Your task to perform on an android device: Search for "razer deathadder" on bestbuy, select the first entry, add it to the cart, then select checkout. Image 0: 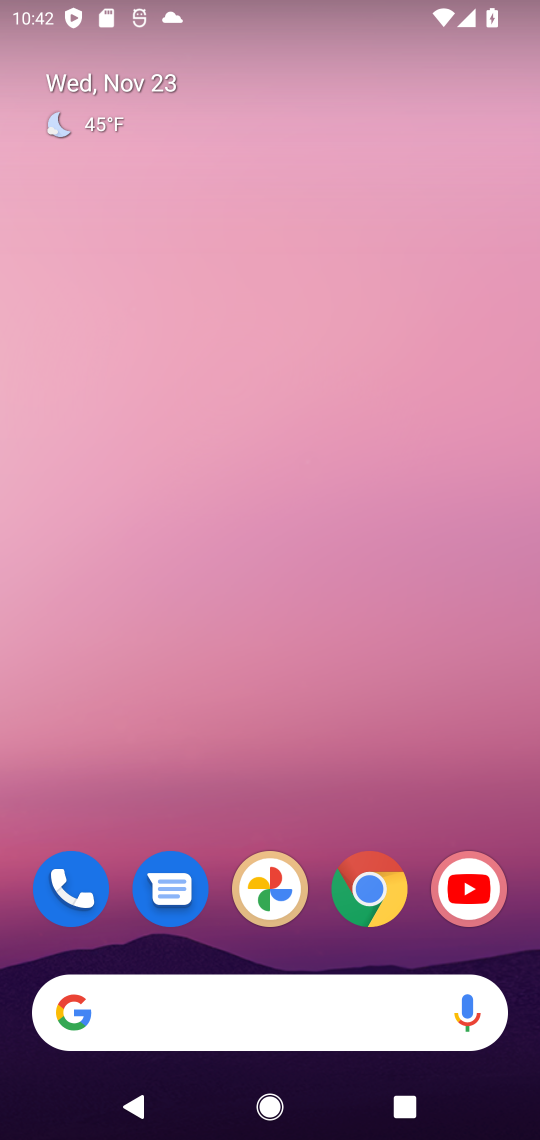
Step 0: click (371, 893)
Your task to perform on an android device: Search for "razer deathadder" on bestbuy, select the first entry, add it to the cart, then select checkout. Image 1: 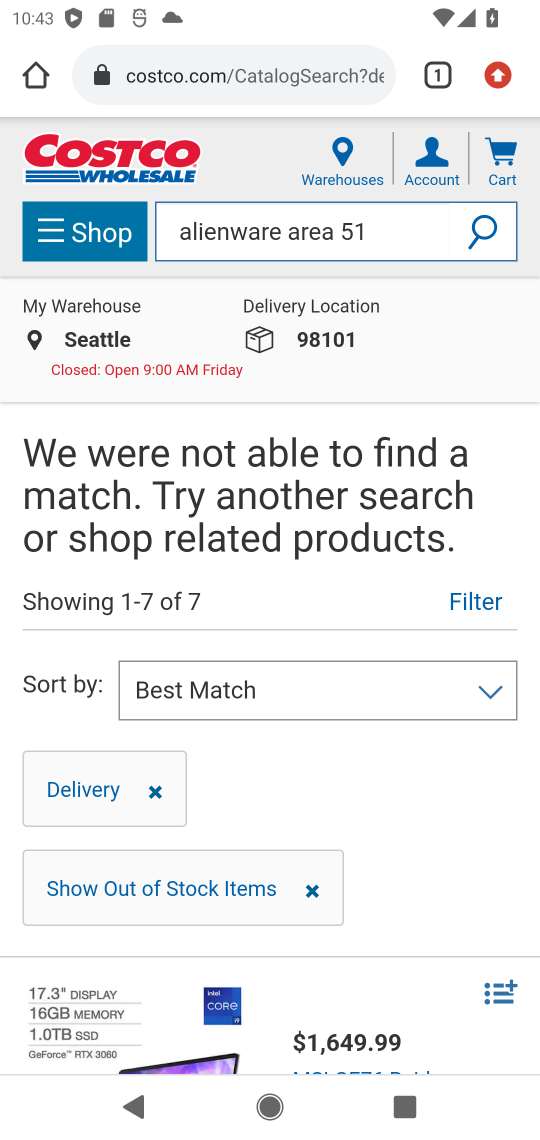
Step 1: click (227, 78)
Your task to perform on an android device: Search for "razer deathadder" on bestbuy, select the first entry, add it to the cart, then select checkout. Image 2: 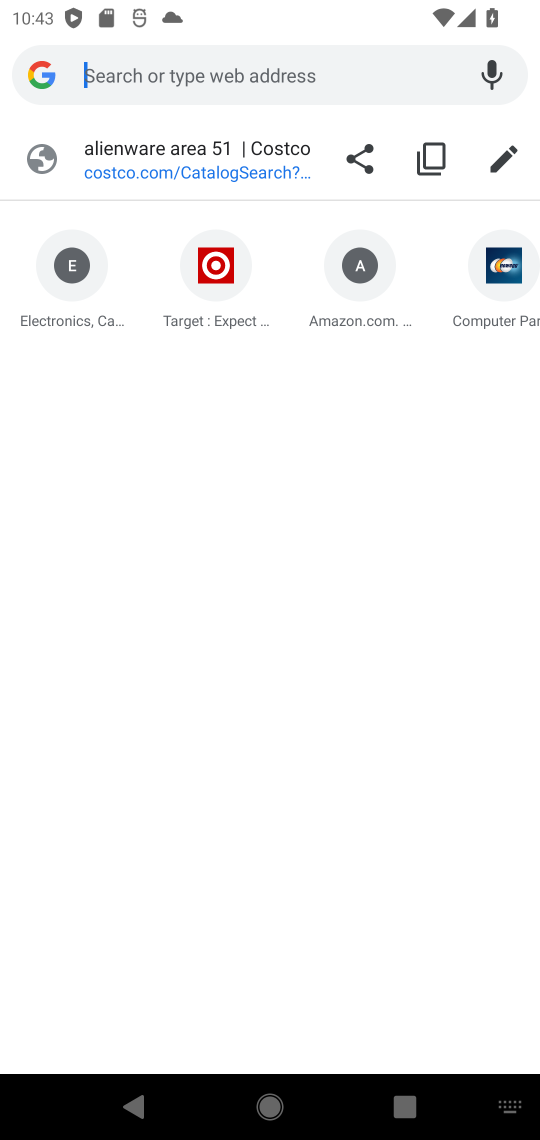
Step 2: type "bestbuy.com"
Your task to perform on an android device: Search for "razer deathadder" on bestbuy, select the first entry, add it to the cart, then select checkout. Image 3: 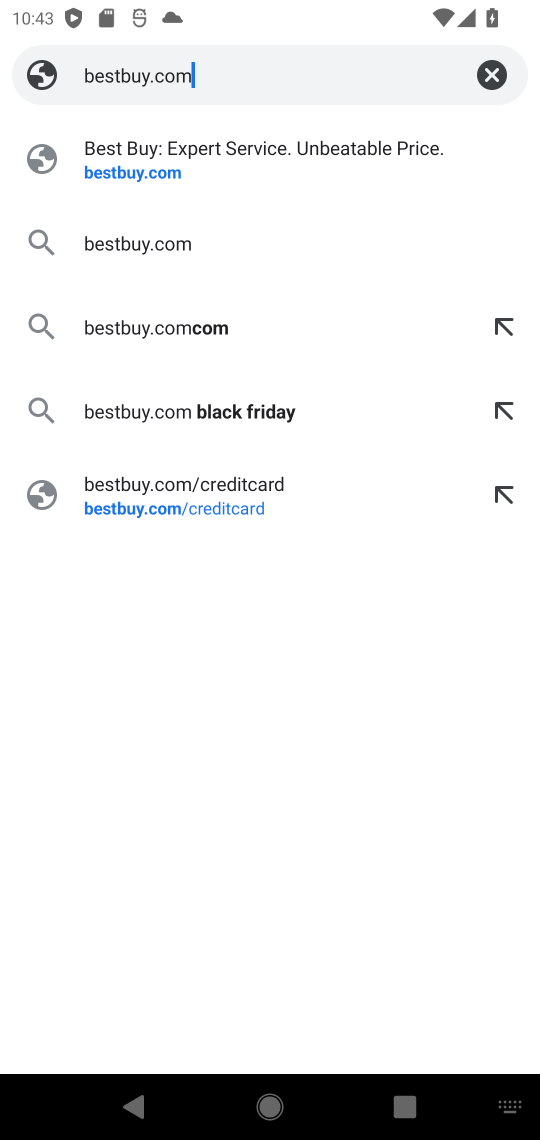
Step 3: click (124, 175)
Your task to perform on an android device: Search for "razer deathadder" on bestbuy, select the first entry, add it to the cart, then select checkout. Image 4: 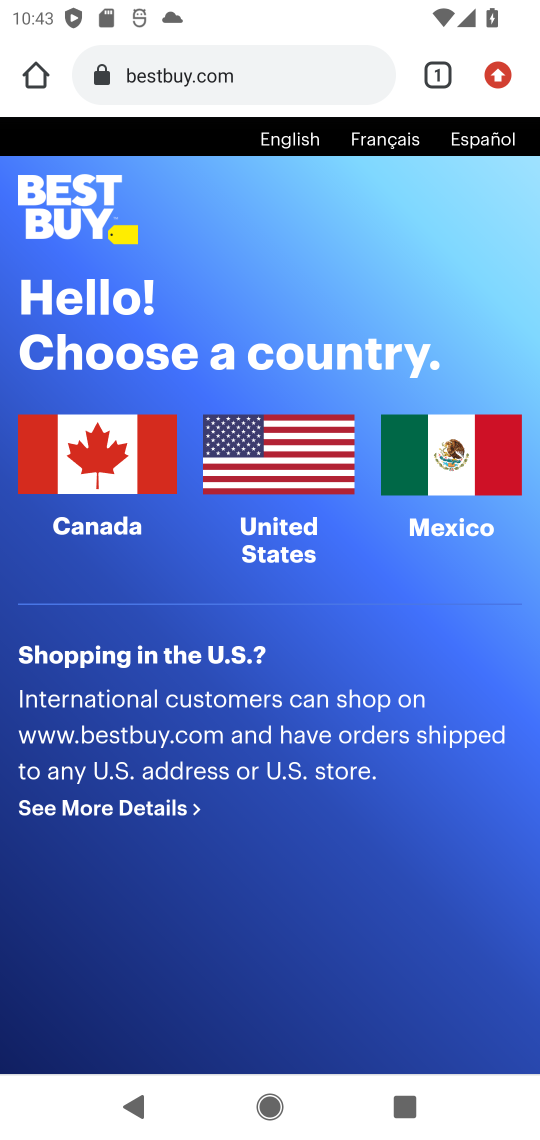
Step 4: click (296, 454)
Your task to perform on an android device: Search for "razer deathadder" on bestbuy, select the first entry, add it to the cart, then select checkout. Image 5: 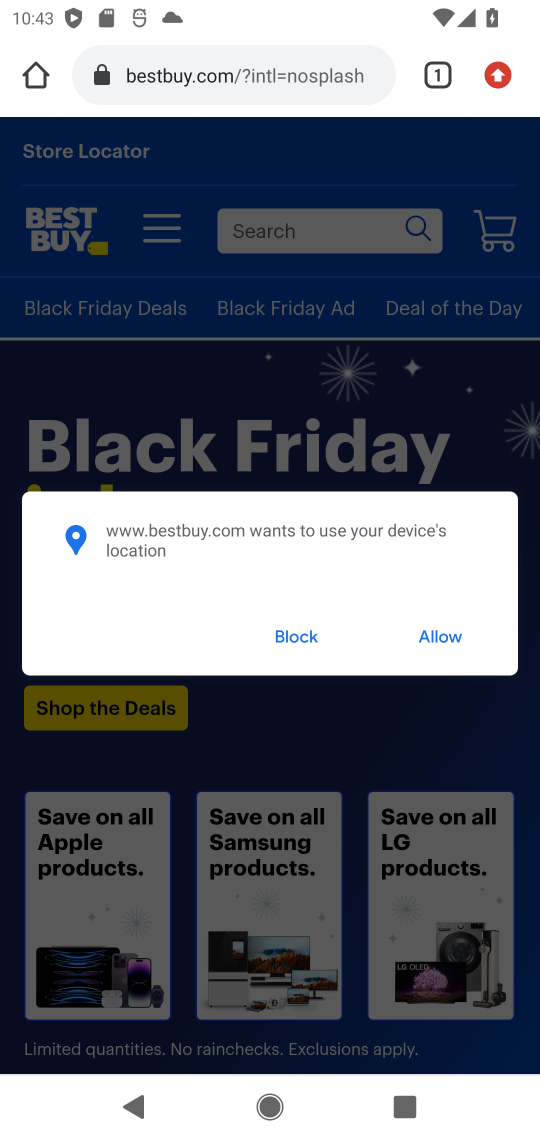
Step 5: click (280, 638)
Your task to perform on an android device: Search for "razer deathadder" on bestbuy, select the first entry, add it to the cart, then select checkout. Image 6: 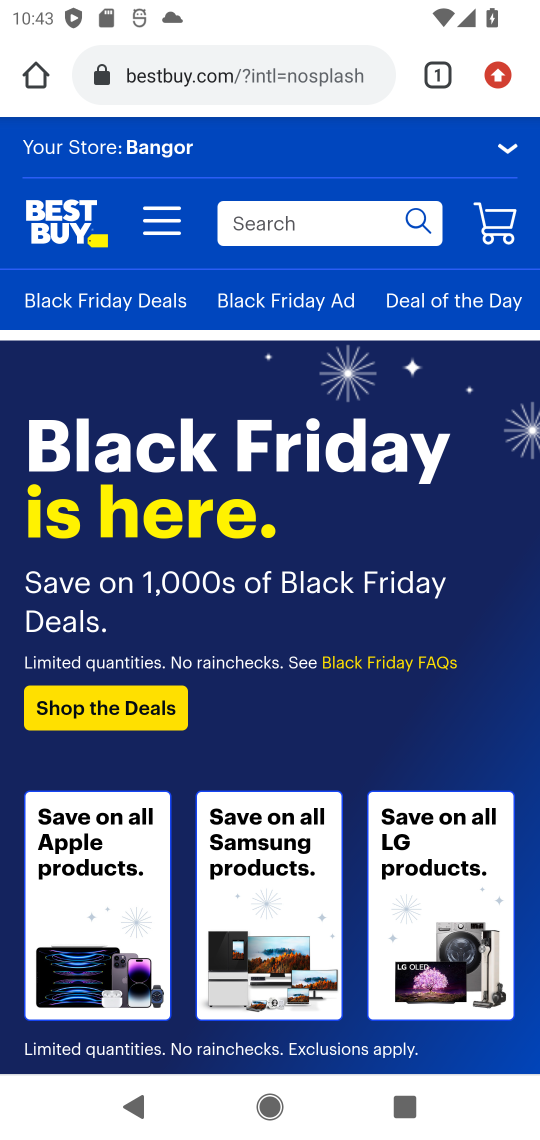
Step 6: click (237, 227)
Your task to perform on an android device: Search for "razer deathadder" on bestbuy, select the first entry, add it to the cart, then select checkout. Image 7: 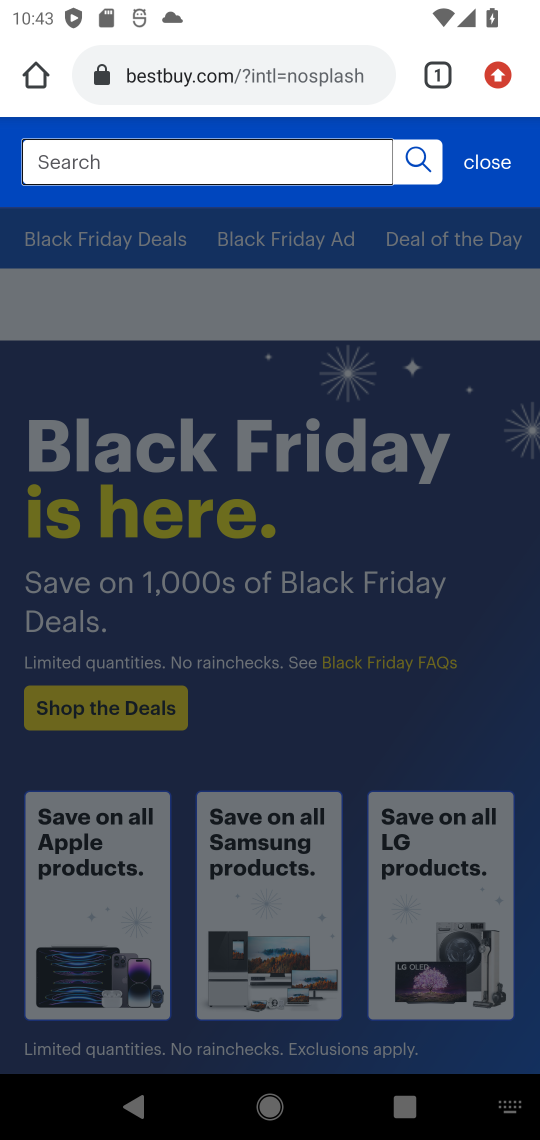
Step 7: type "razer deathadder"
Your task to perform on an android device: Search for "razer deathadder" on bestbuy, select the first entry, add it to the cart, then select checkout. Image 8: 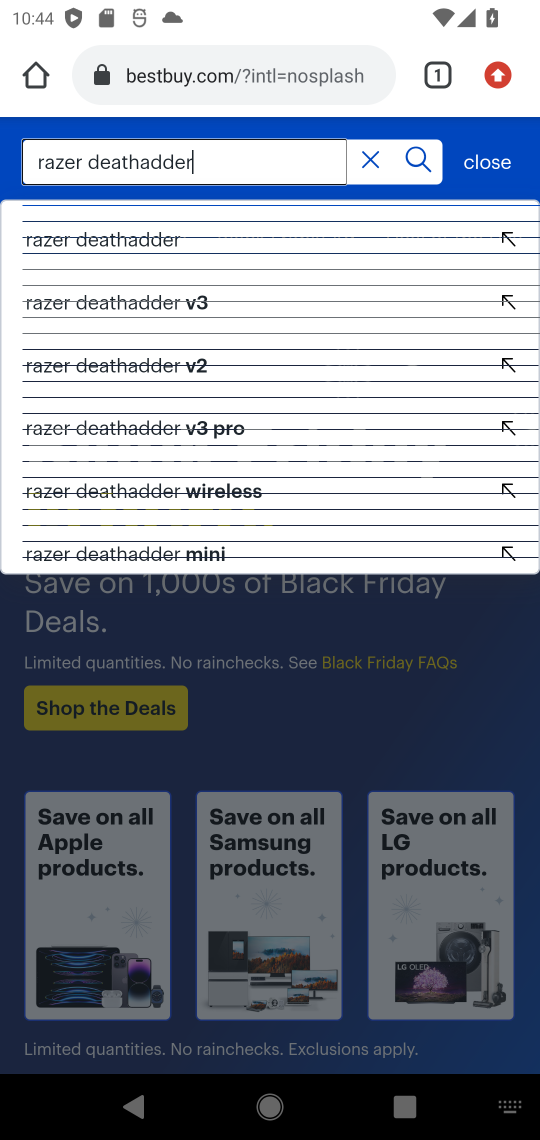
Step 8: click (108, 245)
Your task to perform on an android device: Search for "razer deathadder" on bestbuy, select the first entry, add it to the cart, then select checkout. Image 9: 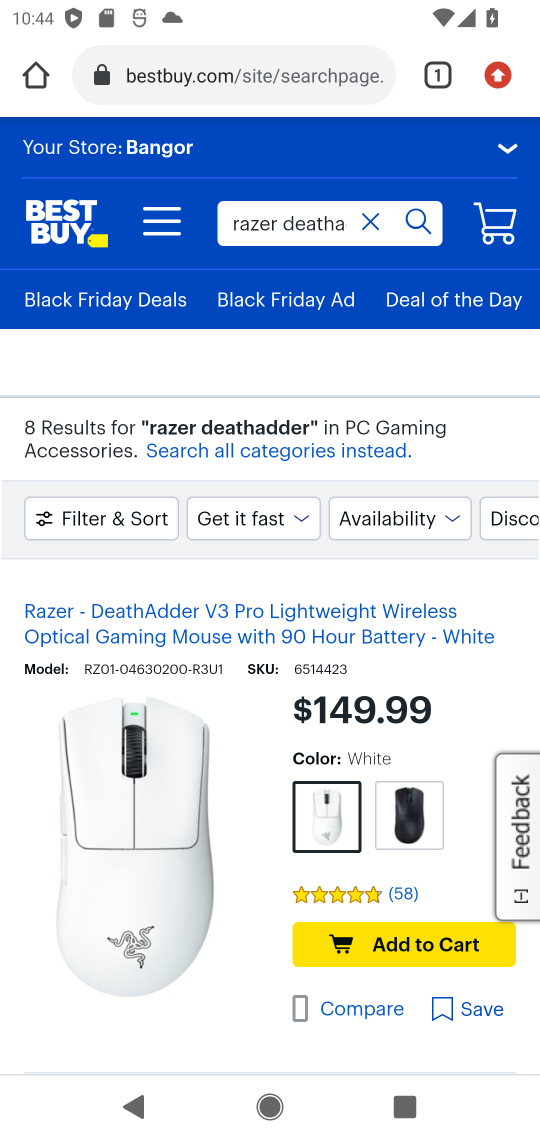
Step 9: click (456, 949)
Your task to perform on an android device: Search for "razer deathadder" on bestbuy, select the first entry, add it to the cart, then select checkout. Image 10: 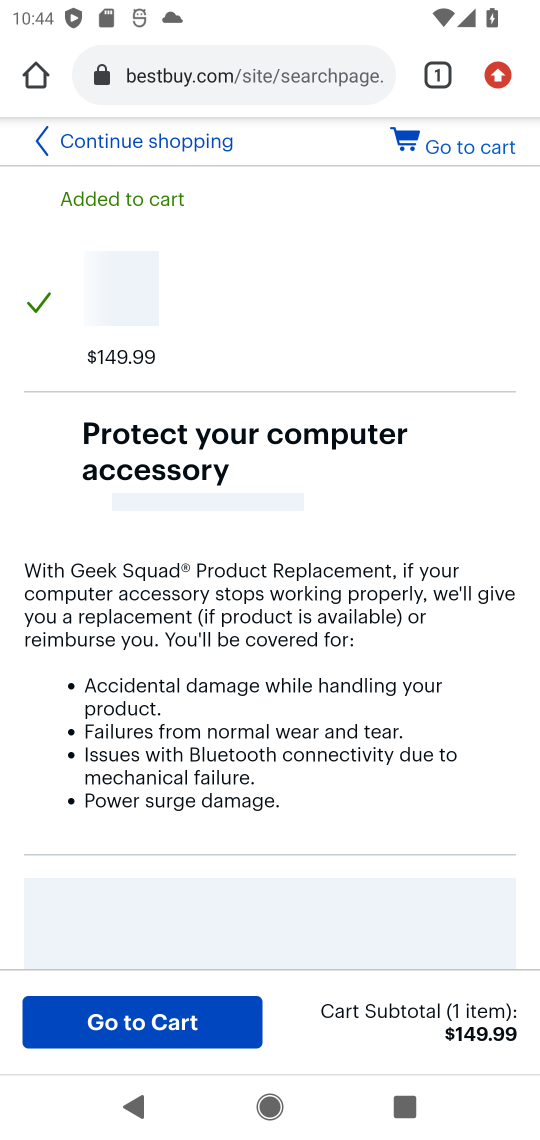
Step 10: click (461, 151)
Your task to perform on an android device: Search for "razer deathadder" on bestbuy, select the first entry, add it to the cart, then select checkout. Image 11: 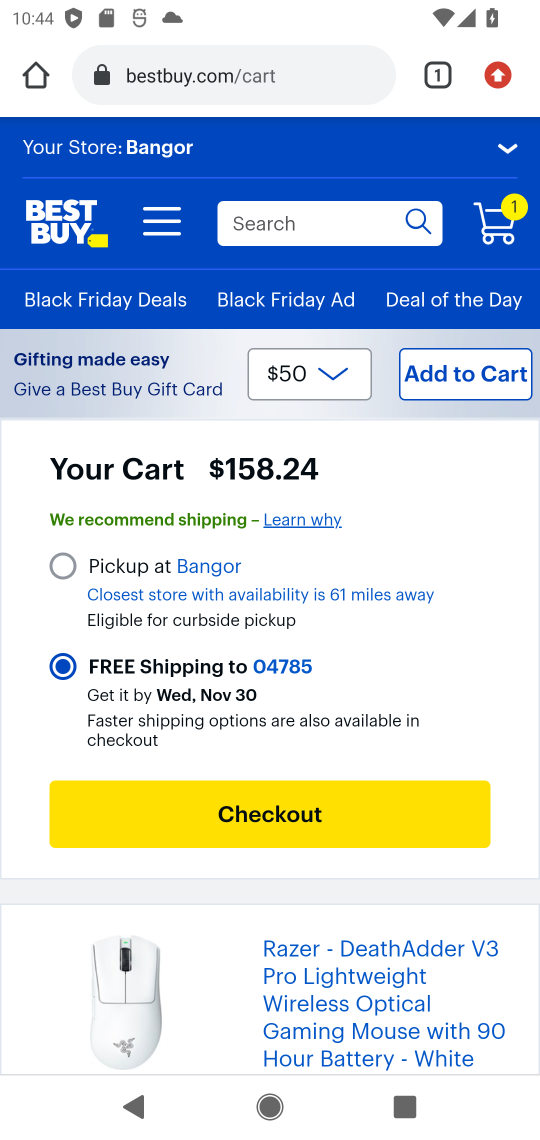
Step 11: click (267, 811)
Your task to perform on an android device: Search for "razer deathadder" on bestbuy, select the first entry, add it to the cart, then select checkout. Image 12: 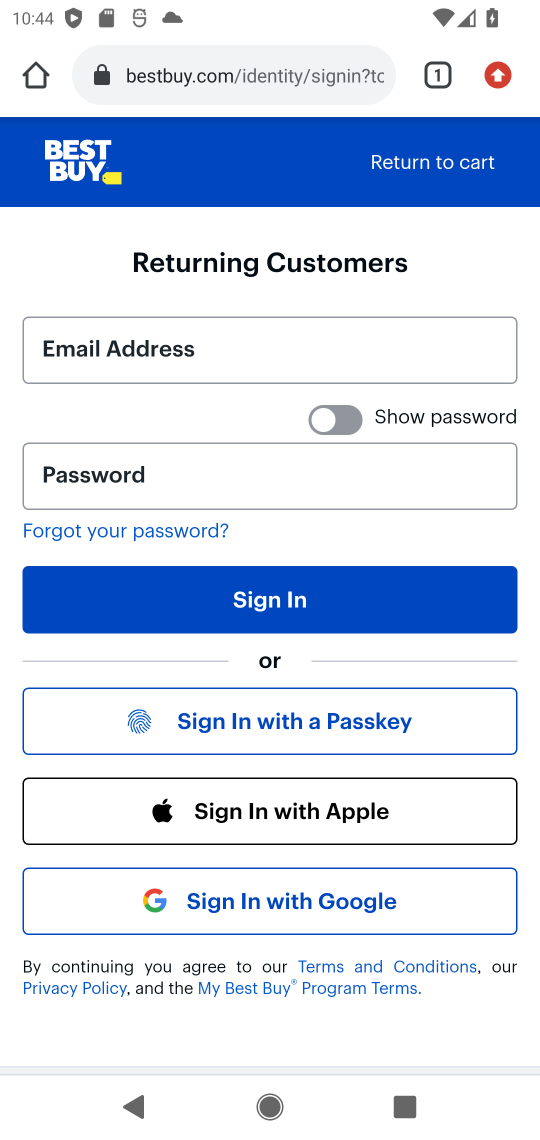
Step 12: task complete